Your task to perform on an android device: turn off smart reply in the gmail app Image 0: 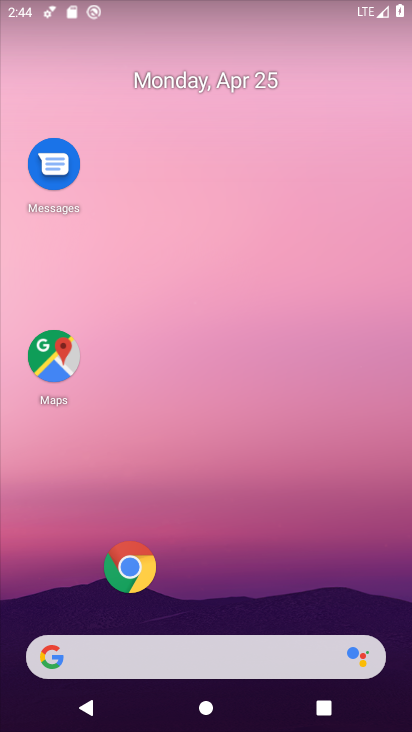
Step 0: click (242, 222)
Your task to perform on an android device: turn off smart reply in the gmail app Image 1: 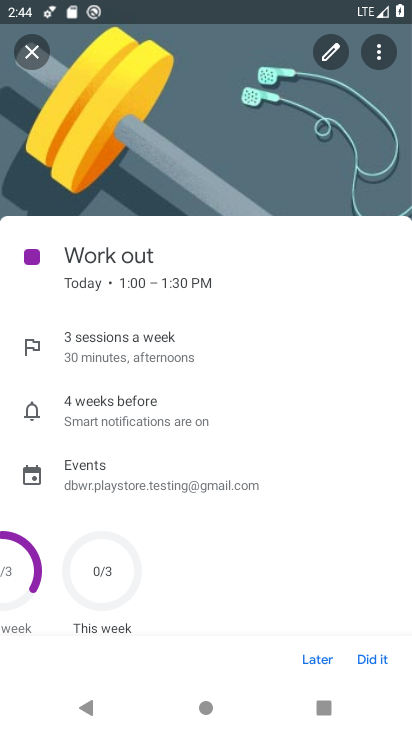
Step 1: press home button
Your task to perform on an android device: turn off smart reply in the gmail app Image 2: 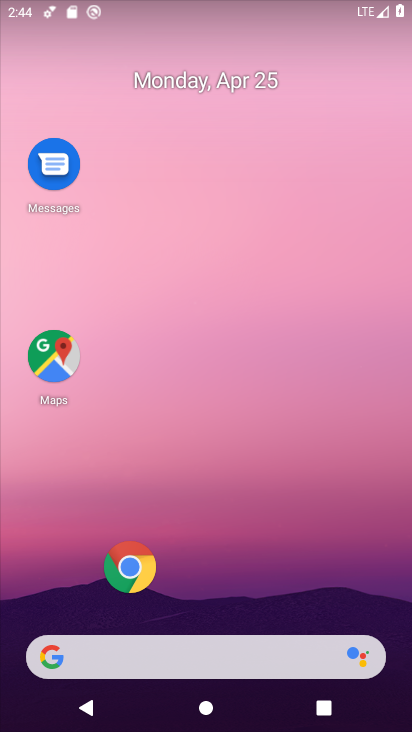
Step 2: drag from (247, 583) to (288, 316)
Your task to perform on an android device: turn off smart reply in the gmail app Image 3: 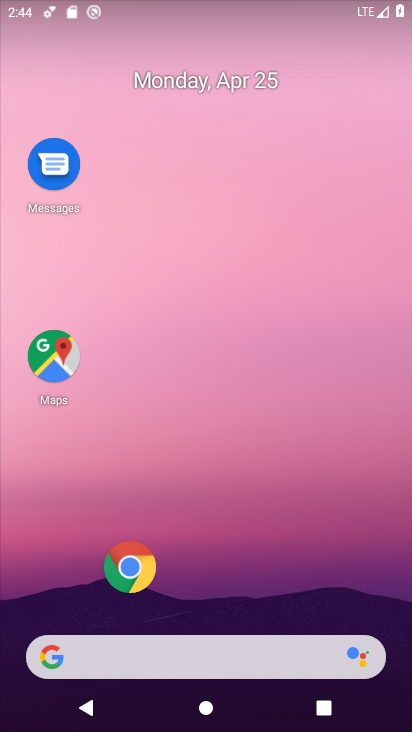
Step 3: drag from (188, 657) to (208, 363)
Your task to perform on an android device: turn off smart reply in the gmail app Image 4: 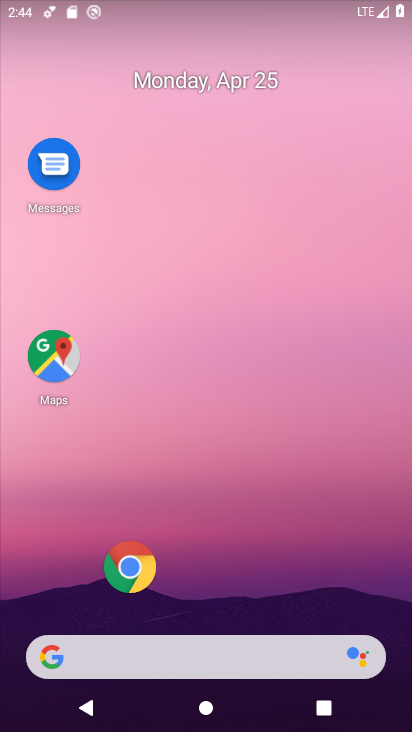
Step 4: drag from (221, 549) to (262, 314)
Your task to perform on an android device: turn off smart reply in the gmail app Image 5: 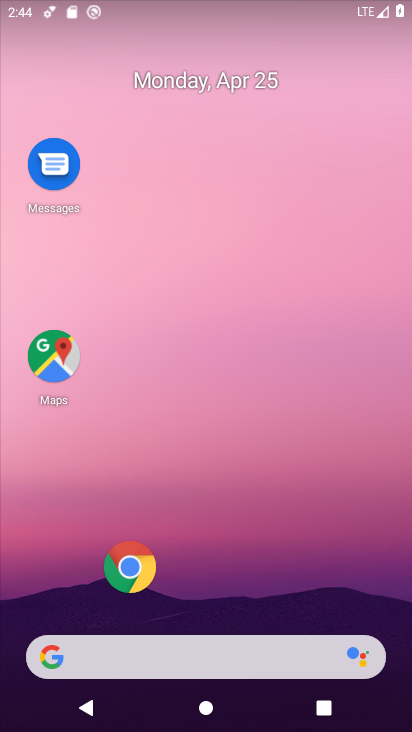
Step 5: drag from (235, 607) to (288, 191)
Your task to perform on an android device: turn off smart reply in the gmail app Image 6: 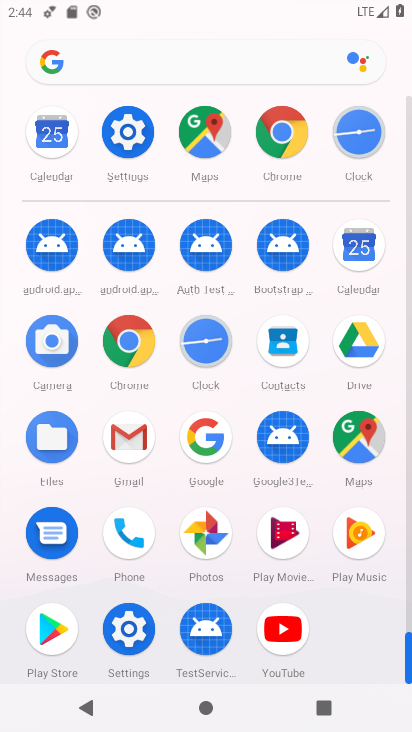
Step 6: click (137, 458)
Your task to perform on an android device: turn off smart reply in the gmail app Image 7: 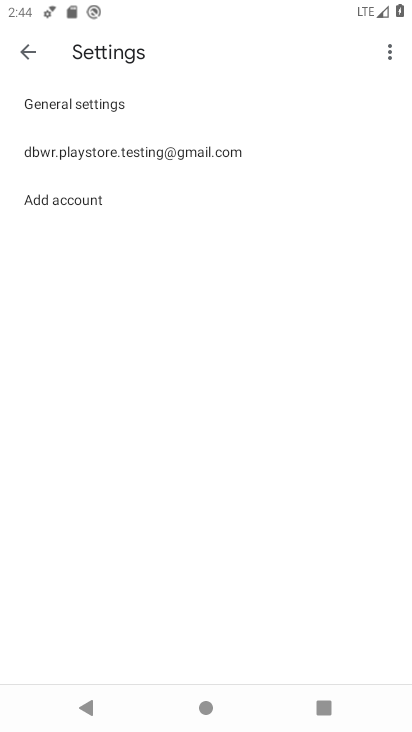
Step 7: click (182, 143)
Your task to perform on an android device: turn off smart reply in the gmail app Image 8: 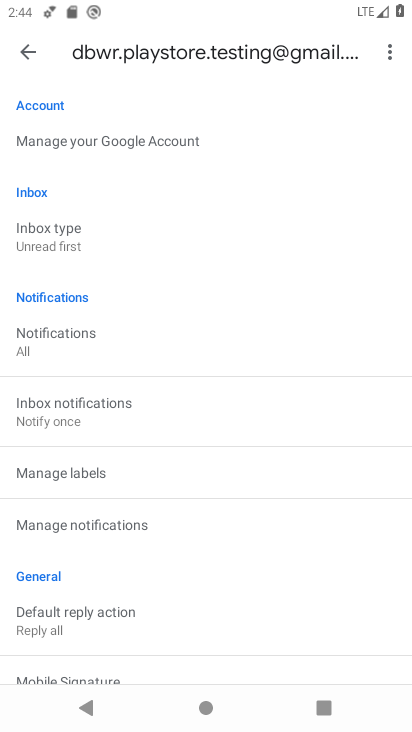
Step 8: drag from (174, 524) to (194, 221)
Your task to perform on an android device: turn off smart reply in the gmail app Image 9: 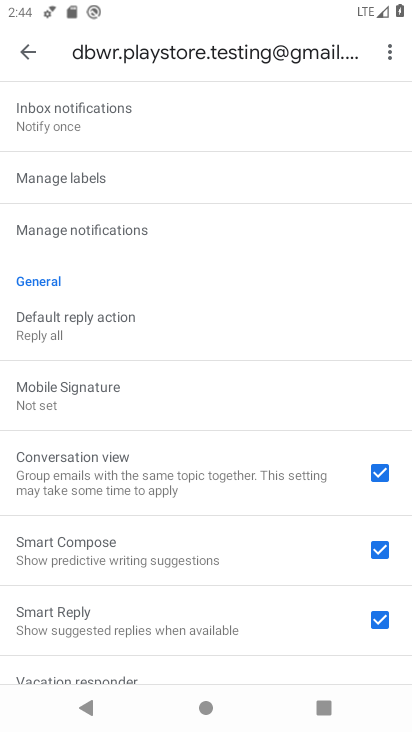
Step 9: drag from (194, 550) to (227, 303)
Your task to perform on an android device: turn off smart reply in the gmail app Image 10: 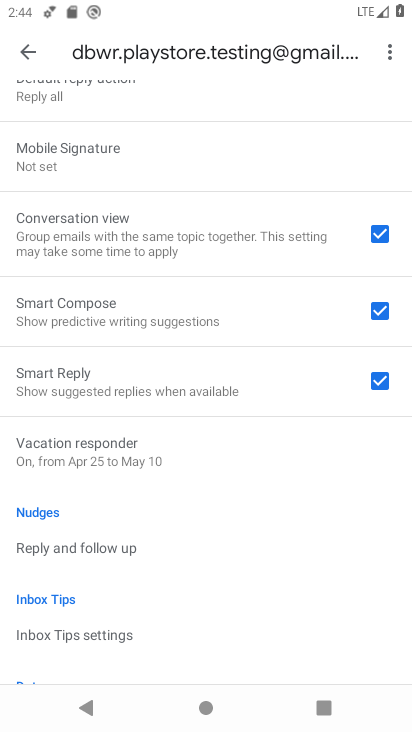
Step 10: click (383, 379)
Your task to perform on an android device: turn off smart reply in the gmail app Image 11: 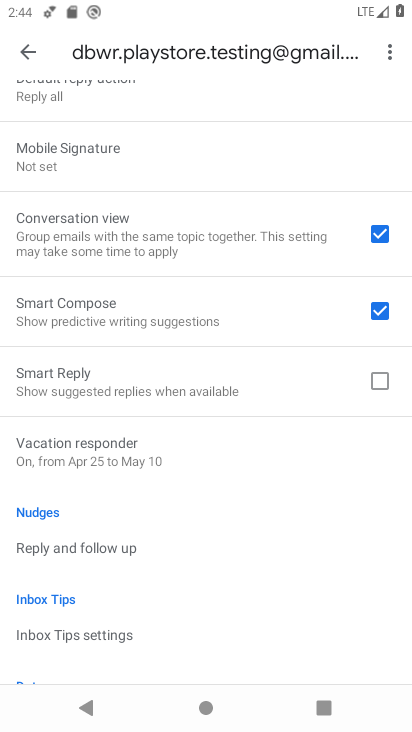
Step 11: task complete